Your task to perform on an android device: Go to location settings Image 0: 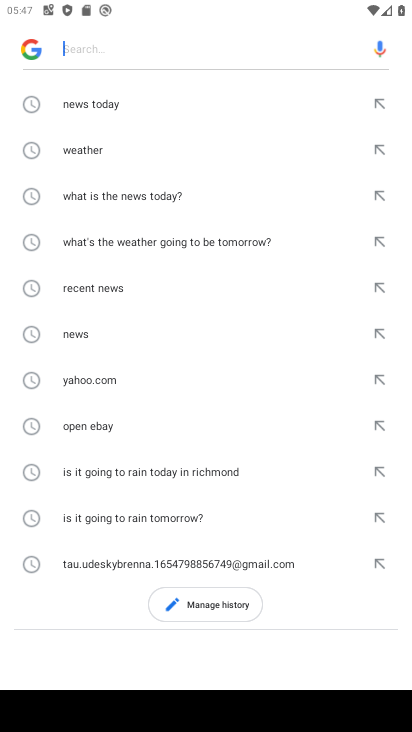
Step 0: press home button
Your task to perform on an android device: Go to location settings Image 1: 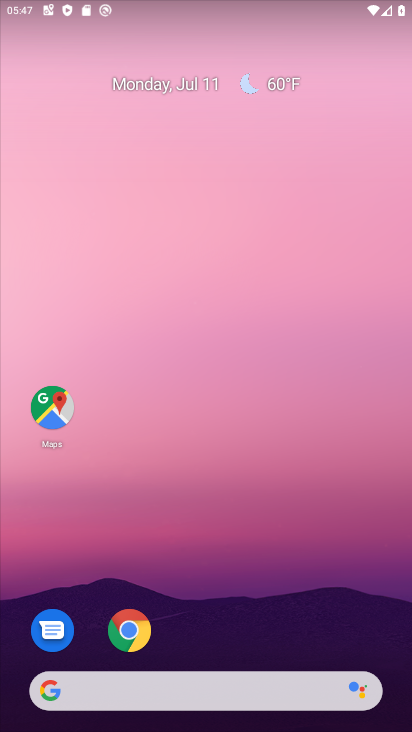
Step 1: drag from (218, 586) to (218, 262)
Your task to perform on an android device: Go to location settings Image 2: 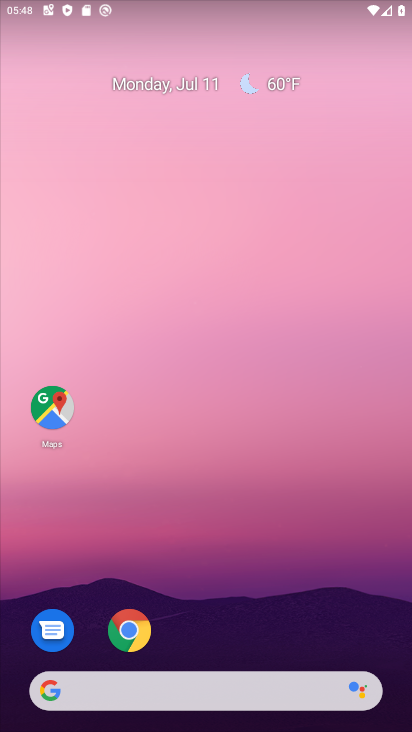
Step 2: drag from (207, 28) to (207, 308)
Your task to perform on an android device: Go to location settings Image 3: 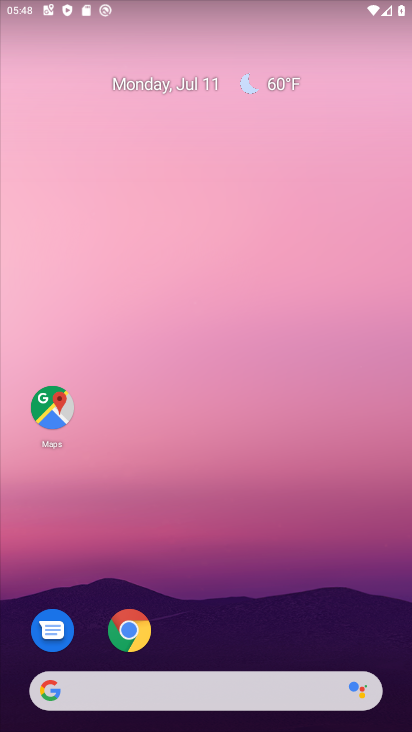
Step 3: drag from (211, 652) to (217, 284)
Your task to perform on an android device: Go to location settings Image 4: 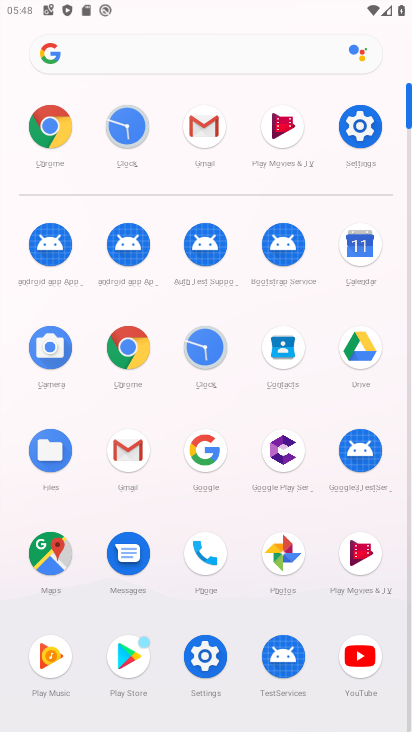
Step 4: click (360, 128)
Your task to perform on an android device: Go to location settings Image 5: 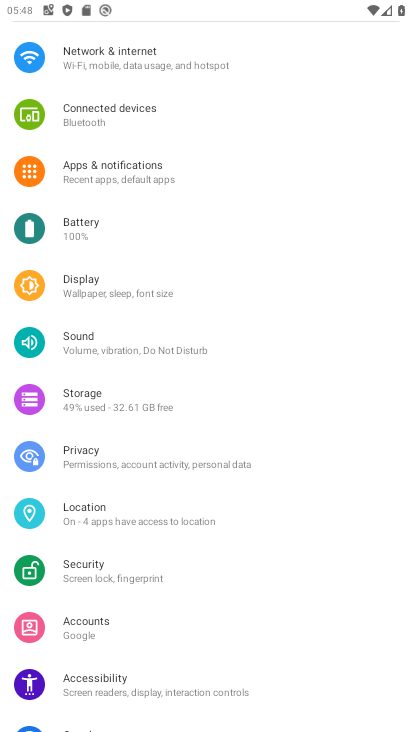
Step 5: click (88, 519)
Your task to perform on an android device: Go to location settings Image 6: 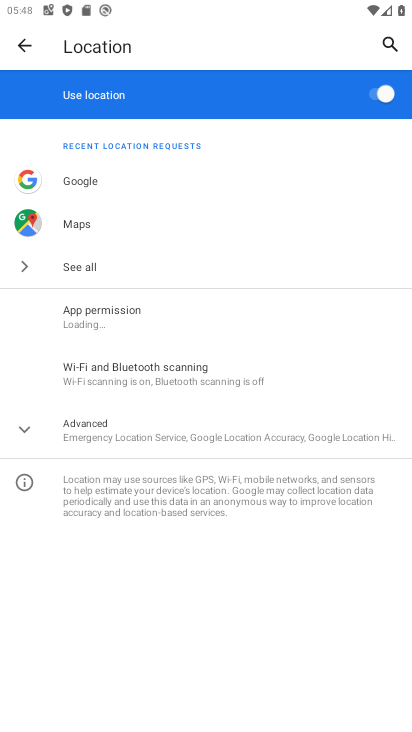
Step 6: task complete